Your task to perform on an android device: Go to Google maps Image 0: 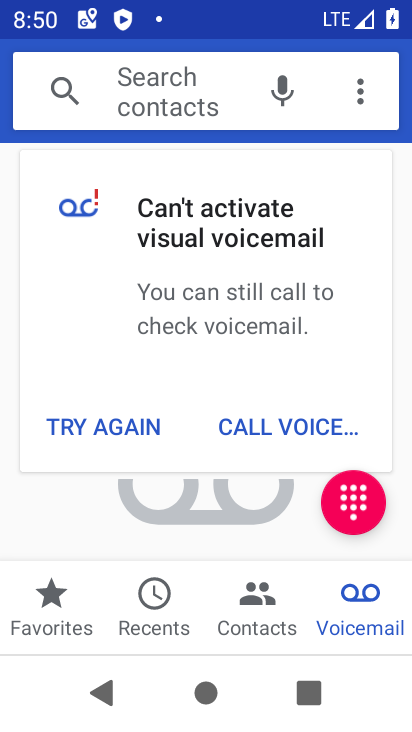
Step 0: press home button
Your task to perform on an android device: Go to Google maps Image 1: 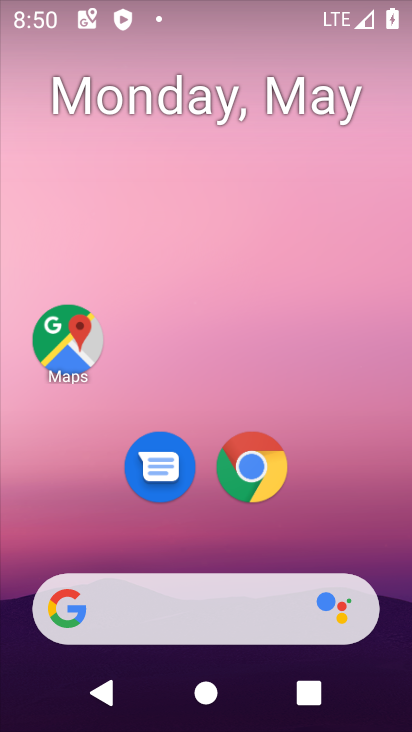
Step 1: click (56, 326)
Your task to perform on an android device: Go to Google maps Image 2: 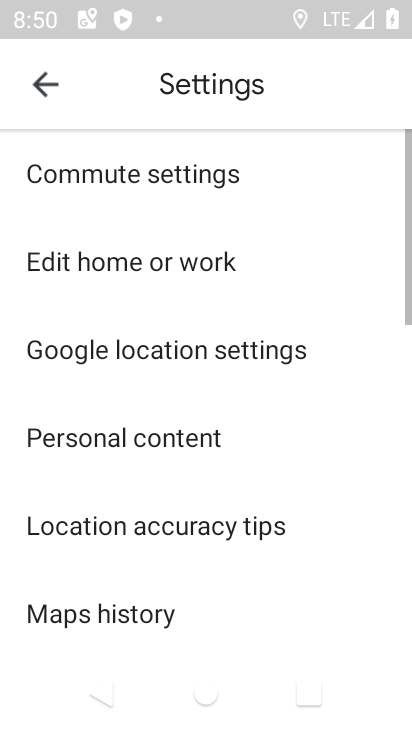
Step 2: click (45, 94)
Your task to perform on an android device: Go to Google maps Image 3: 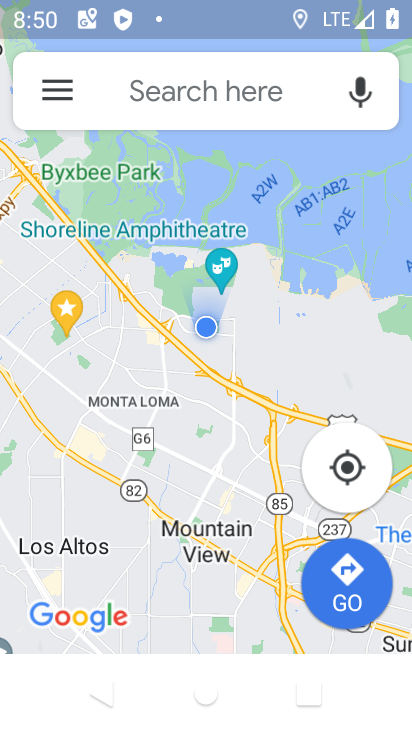
Step 3: task complete